Your task to perform on an android device: turn on airplane mode Image 0: 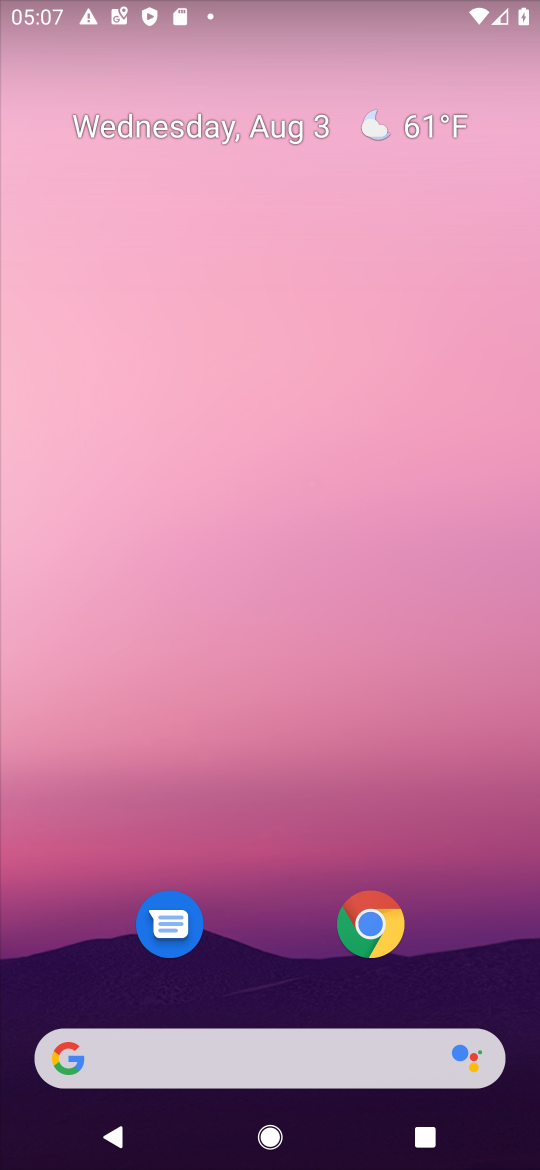
Step 0: drag from (274, 956) to (278, 347)
Your task to perform on an android device: turn on airplane mode Image 1: 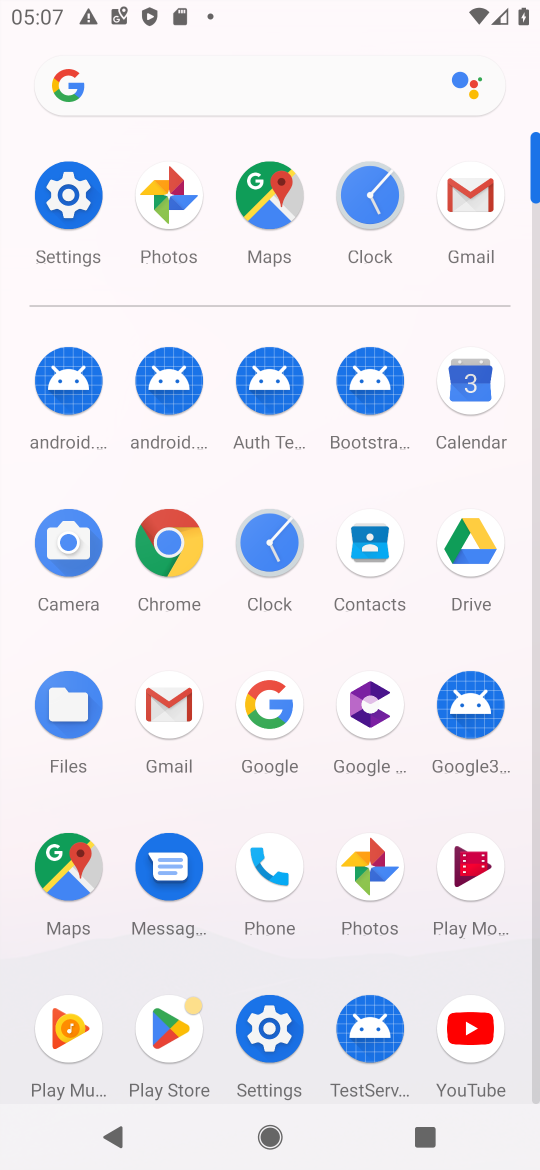
Step 1: click (54, 184)
Your task to perform on an android device: turn on airplane mode Image 2: 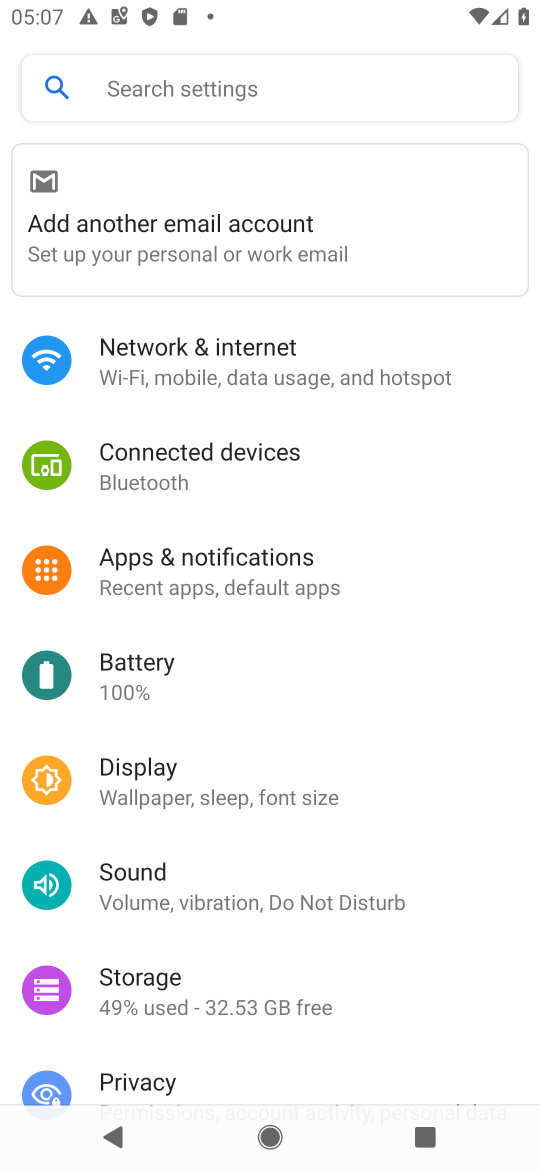
Step 2: click (264, 368)
Your task to perform on an android device: turn on airplane mode Image 3: 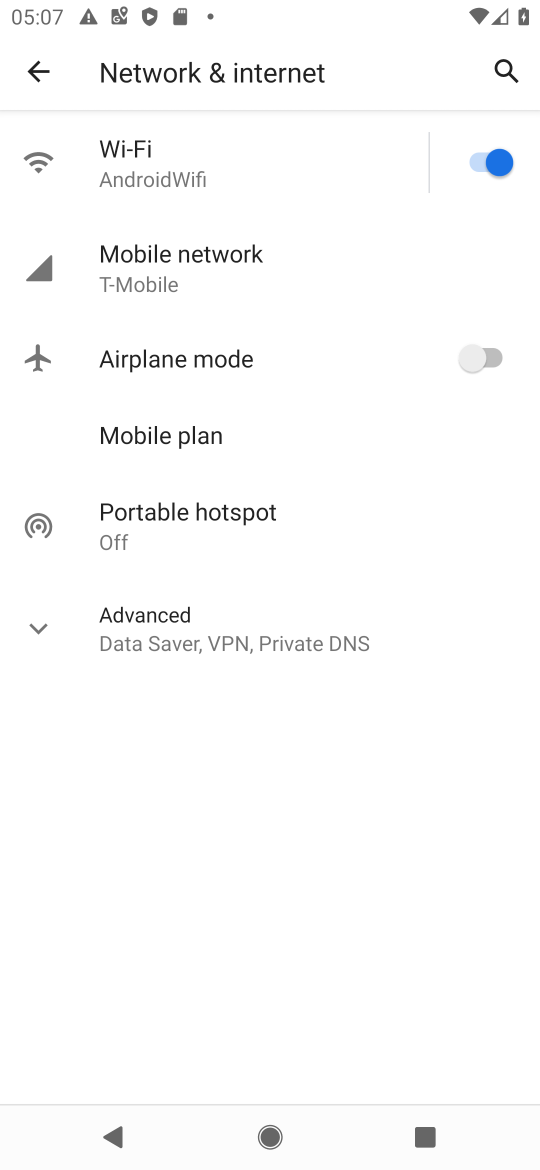
Step 3: click (466, 331)
Your task to perform on an android device: turn on airplane mode Image 4: 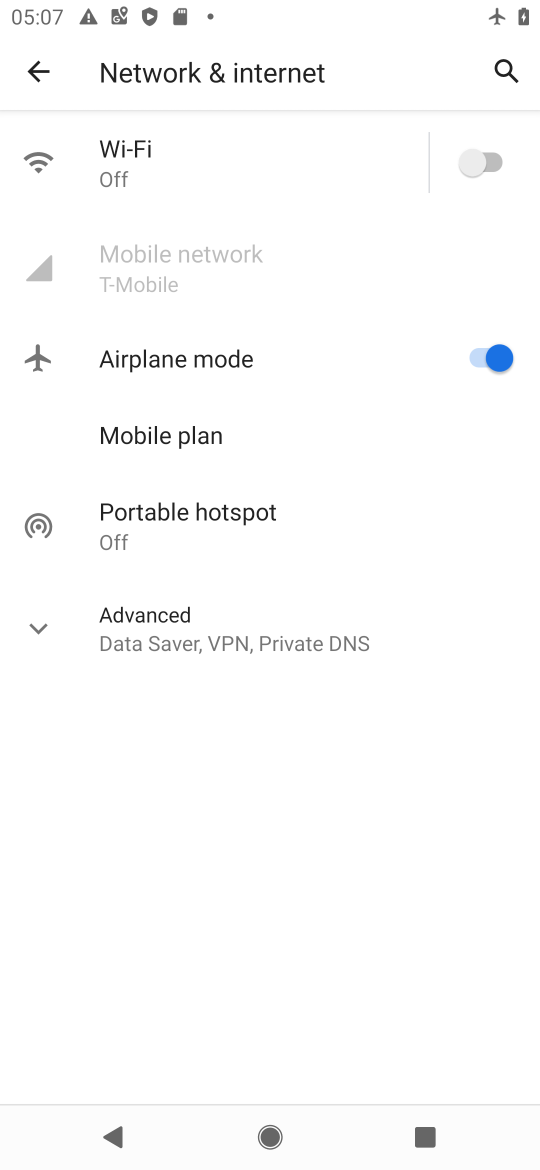
Step 4: task complete